Your task to perform on an android device: Open Yahoo.com Image 0: 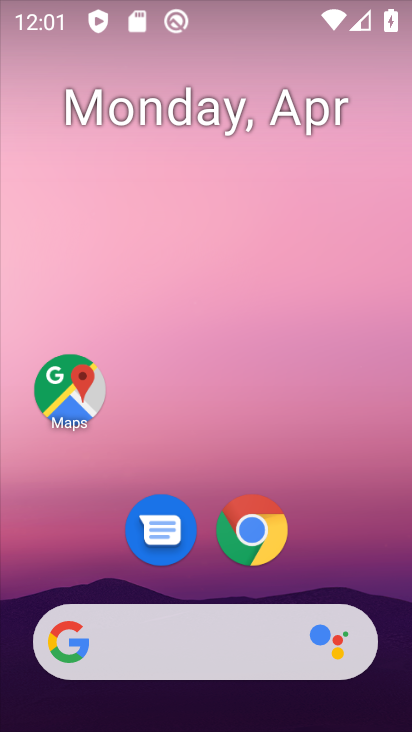
Step 0: drag from (188, 423) to (175, 384)
Your task to perform on an android device: Open Yahoo.com Image 1: 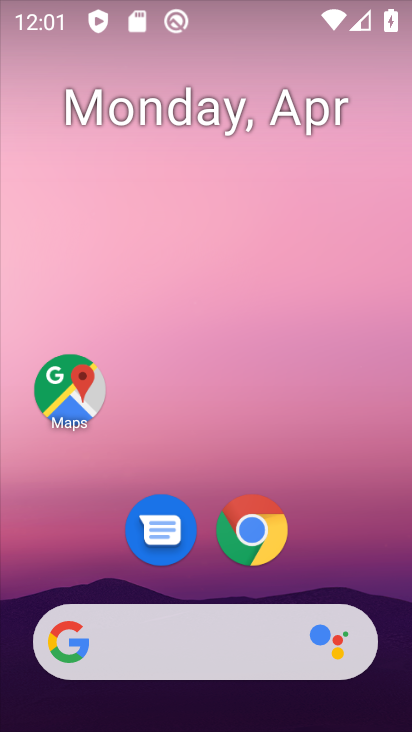
Step 1: click (247, 531)
Your task to perform on an android device: Open Yahoo.com Image 2: 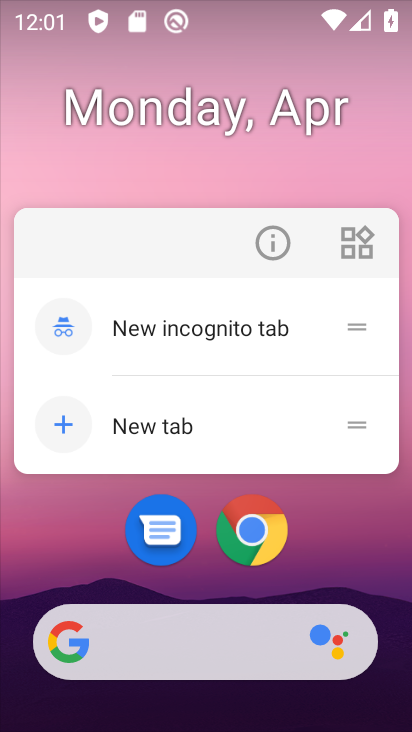
Step 2: click (281, 238)
Your task to perform on an android device: Open Yahoo.com Image 3: 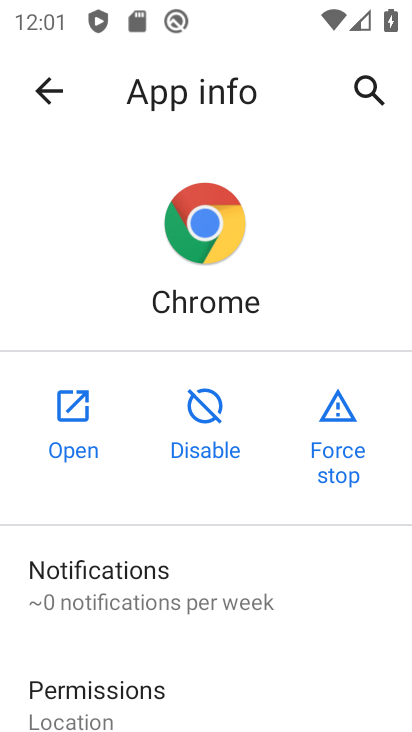
Step 3: click (87, 428)
Your task to perform on an android device: Open Yahoo.com Image 4: 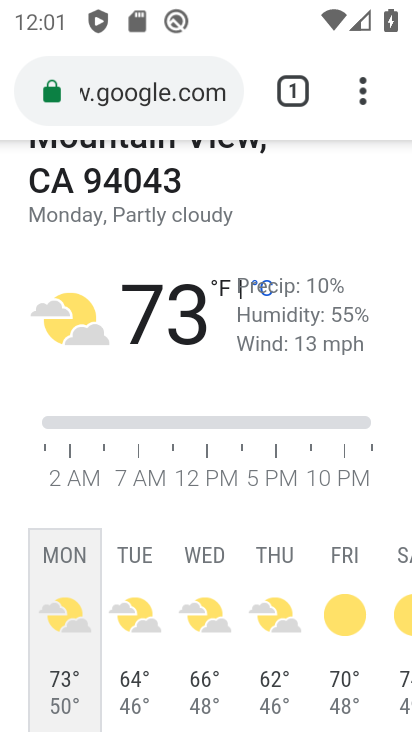
Step 4: click (151, 77)
Your task to perform on an android device: Open Yahoo.com Image 5: 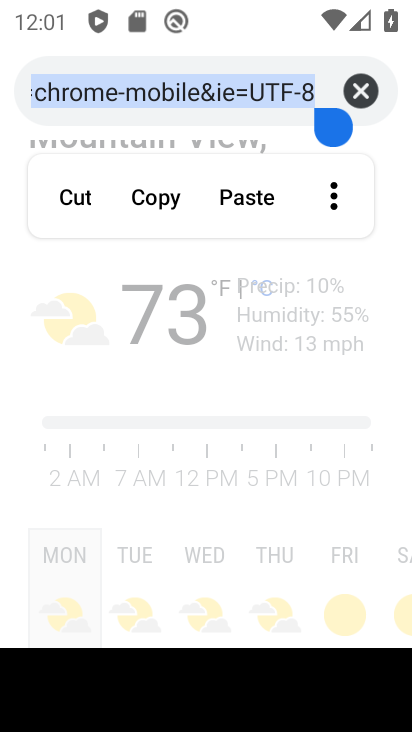
Step 5: type "yahoo.com"
Your task to perform on an android device: Open Yahoo.com Image 6: 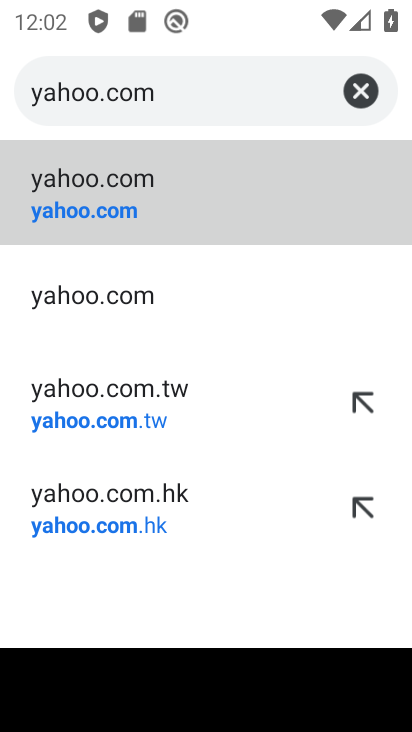
Step 6: click (125, 214)
Your task to perform on an android device: Open Yahoo.com Image 7: 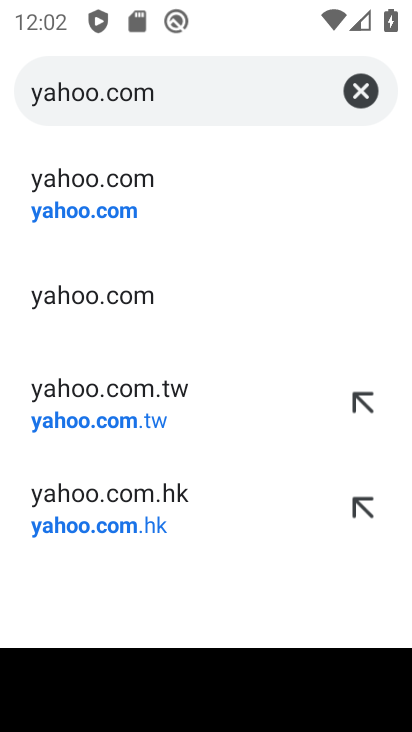
Step 7: click (52, 190)
Your task to perform on an android device: Open Yahoo.com Image 8: 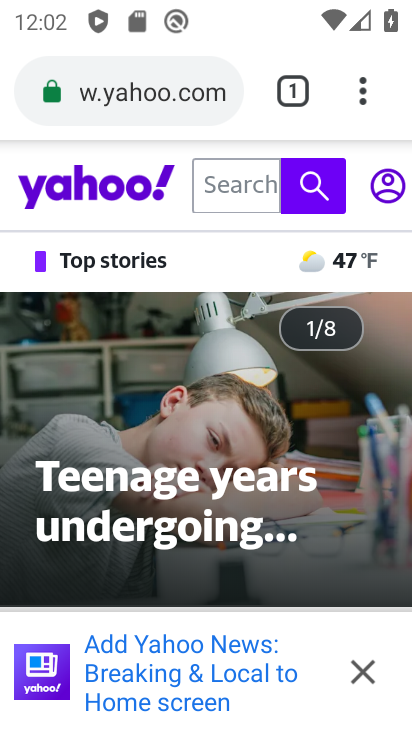
Step 8: task complete